Your task to perform on an android device: turn on priority inbox in the gmail app Image 0: 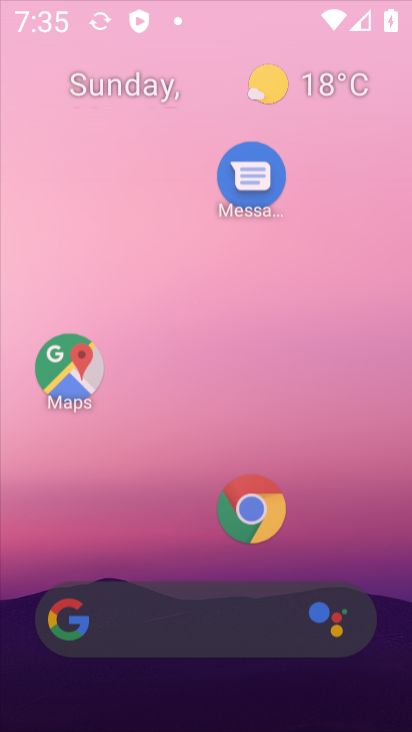
Step 0: press home button
Your task to perform on an android device: turn on priority inbox in the gmail app Image 1: 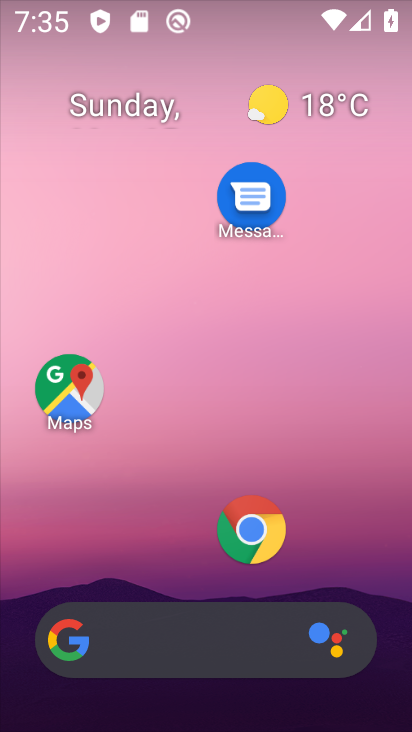
Step 1: drag from (214, 576) to (220, 46)
Your task to perform on an android device: turn on priority inbox in the gmail app Image 2: 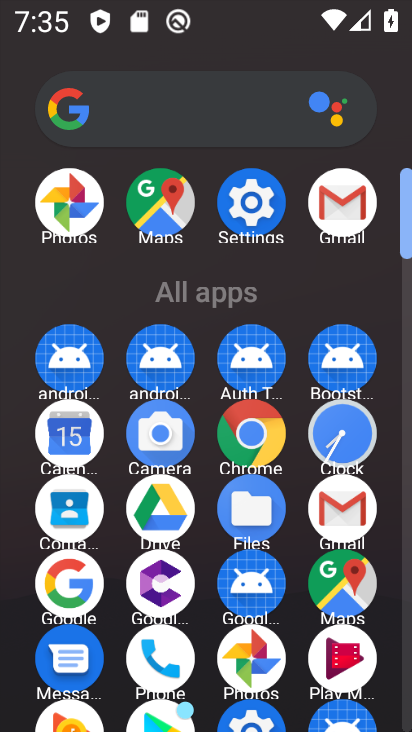
Step 2: click (269, 200)
Your task to perform on an android device: turn on priority inbox in the gmail app Image 3: 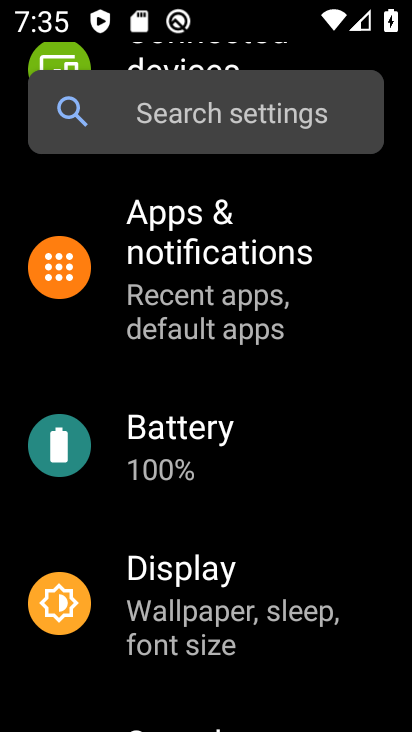
Step 3: click (168, 607)
Your task to perform on an android device: turn on priority inbox in the gmail app Image 4: 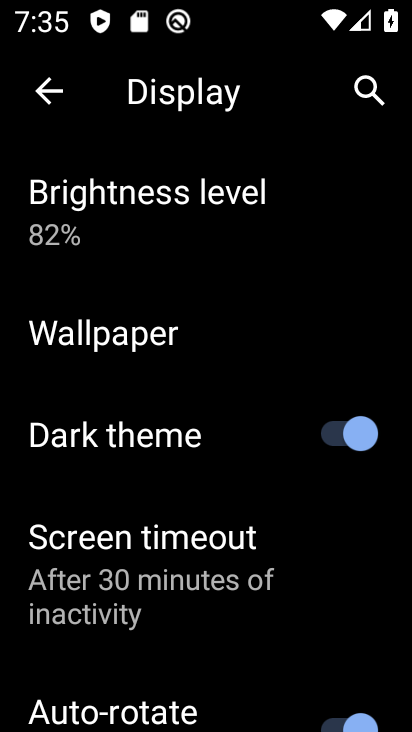
Step 4: drag from (220, 606) to (238, 220)
Your task to perform on an android device: turn on priority inbox in the gmail app Image 5: 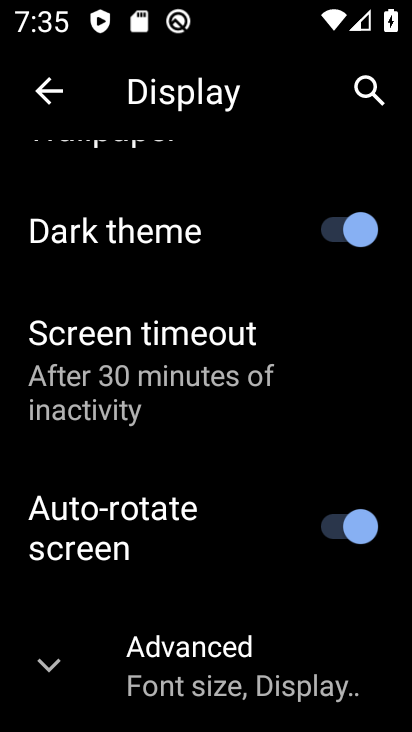
Step 5: click (211, 266)
Your task to perform on an android device: turn on priority inbox in the gmail app Image 6: 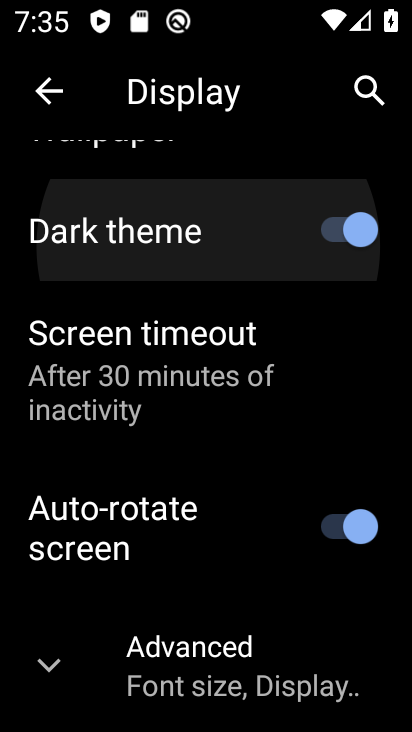
Step 6: click (67, 667)
Your task to perform on an android device: turn on priority inbox in the gmail app Image 7: 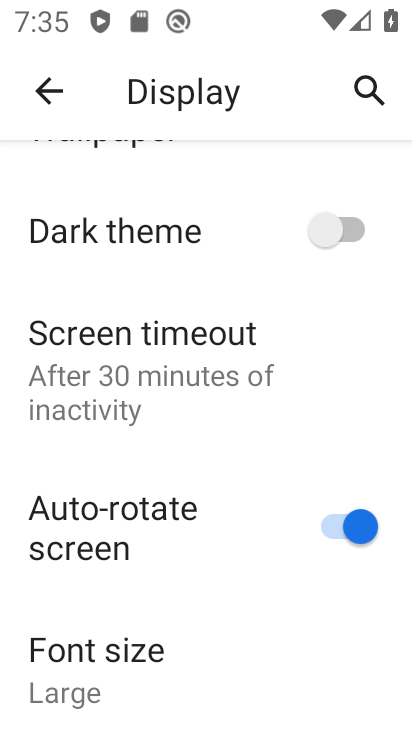
Step 7: task complete